Your task to perform on an android device: check battery use Image 0: 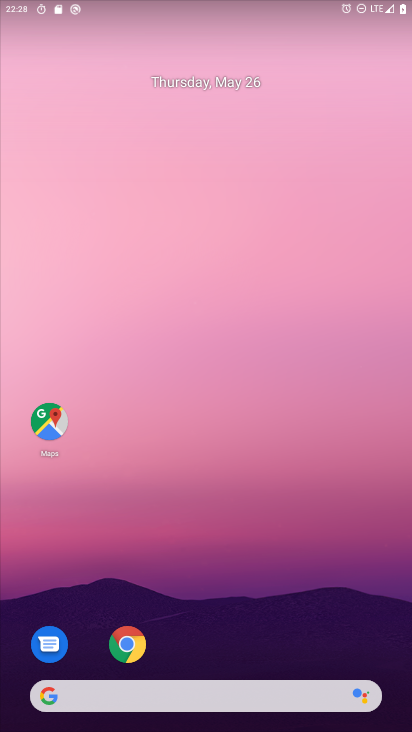
Step 0: drag from (168, 667) to (235, 128)
Your task to perform on an android device: check battery use Image 1: 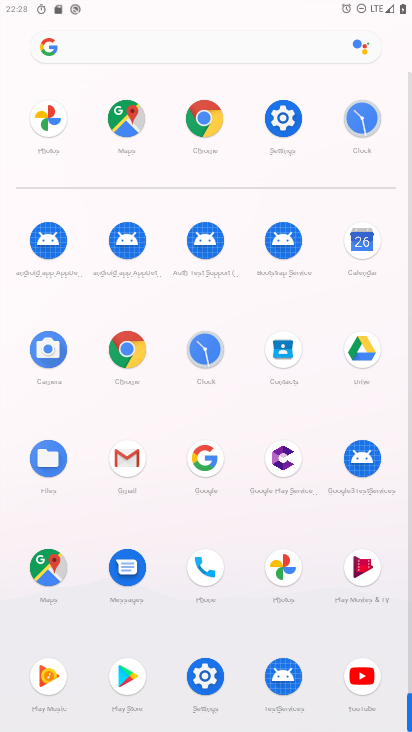
Step 1: click (277, 128)
Your task to perform on an android device: check battery use Image 2: 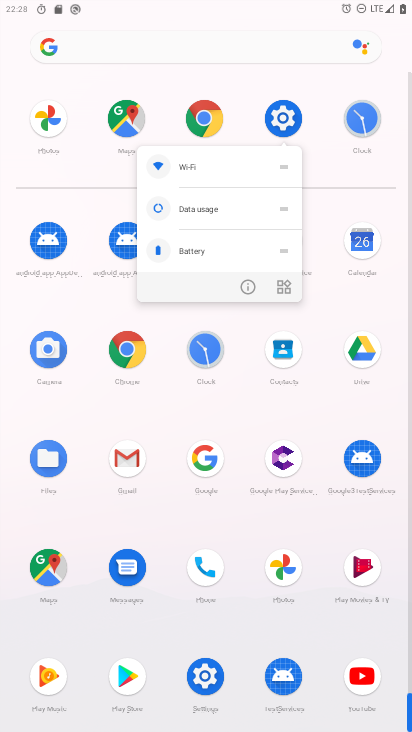
Step 2: click (248, 279)
Your task to perform on an android device: check battery use Image 3: 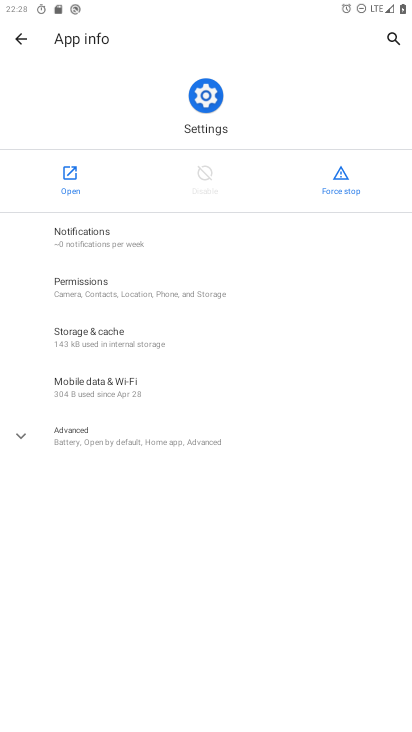
Step 3: click (73, 193)
Your task to perform on an android device: check battery use Image 4: 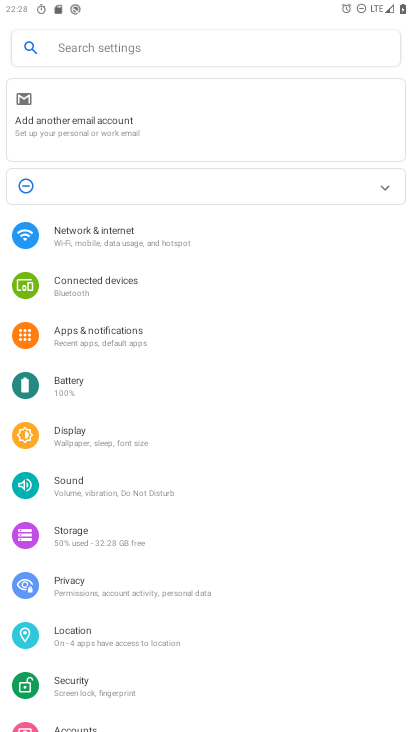
Step 4: click (92, 380)
Your task to perform on an android device: check battery use Image 5: 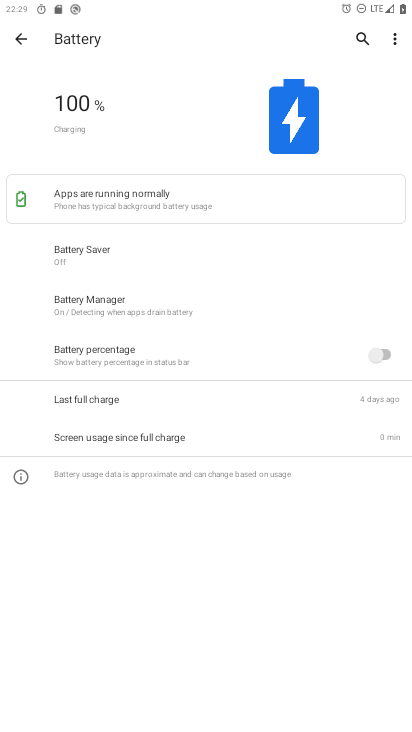
Step 5: click (393, 37)
Your task to perform on an android device: check battery use Image 6: 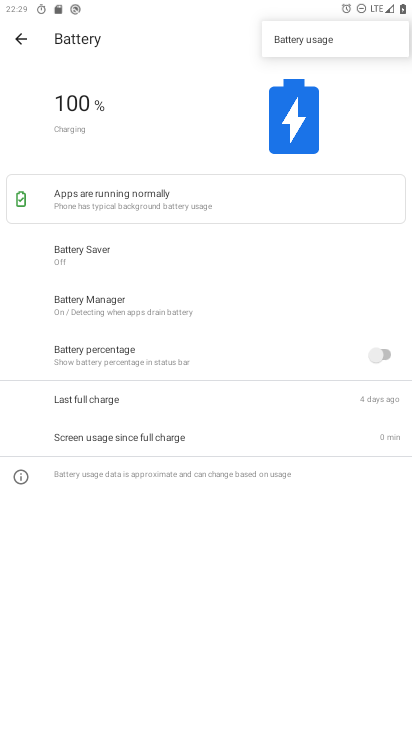
Step 6: click (348, 38)
Your task to perform on an android device: check battery use Image 7: 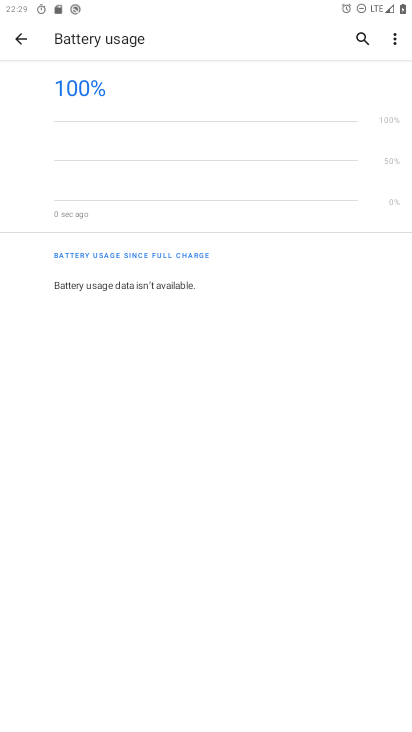
Step 7: task complete